Your task to perform on an android device: Turn off the flashlight Image 0: 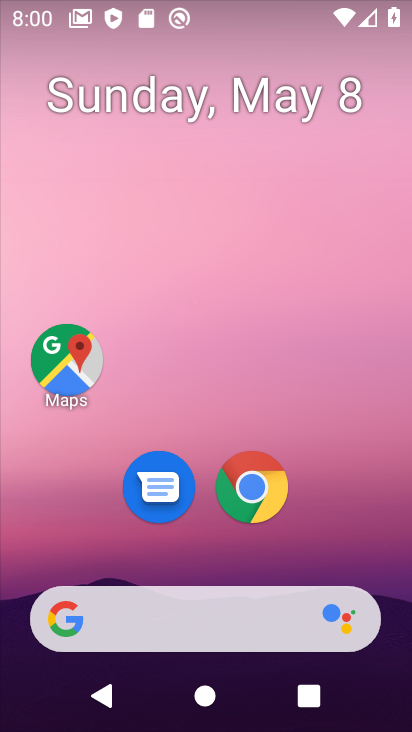
Step 0: drag from (343, 541) to (337, 69)
Your task to perform on an android device: Turn off the flashlight Image 1: 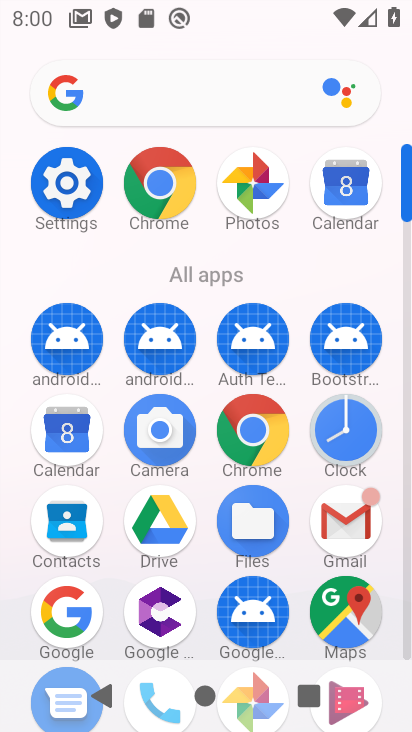
Step 1: click (67, 178)
Your task to perform on an android device: Turn off the flashlight Image 2: 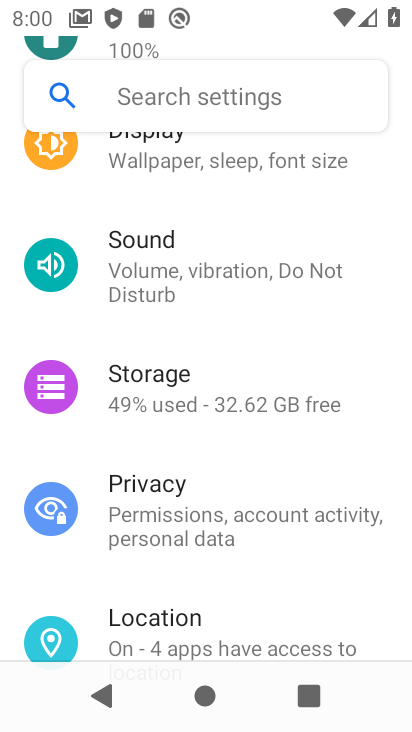
Step 2: task complete